Your task to perform on an android device: open device folders in google photos Image 0: 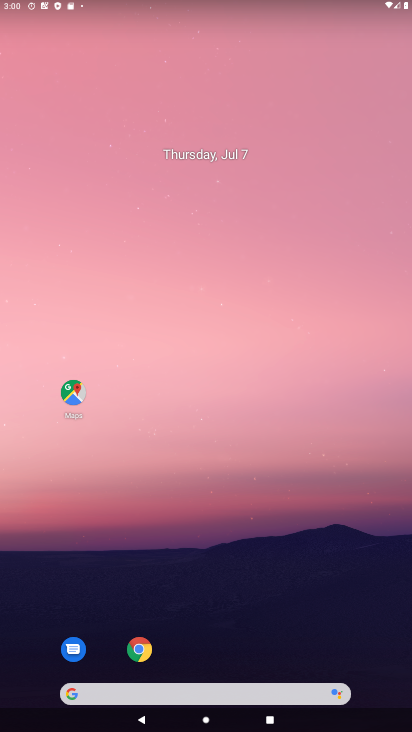
Step 0: drag from (270, 670) to (223, 7)
Your task to perform on an android device: open device folders in google photos Image 1: 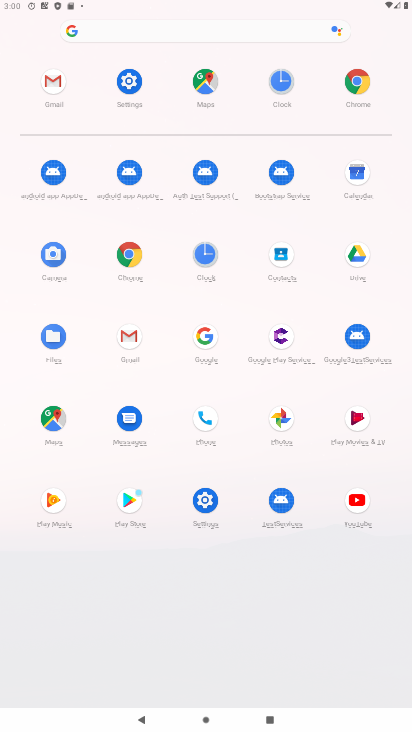
Step 1: click (282, 412)
Your task to perform on an android device: open device folders in google photos Image 2: 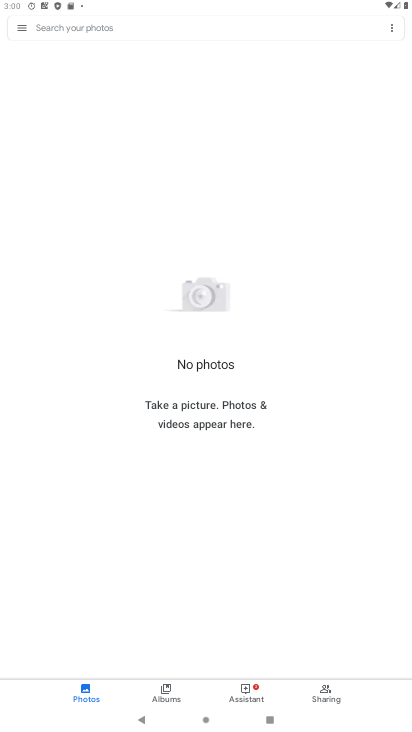
Step 2: click (12, 23)
Your task to perform on an android device: open device folders in google photos Image 3: 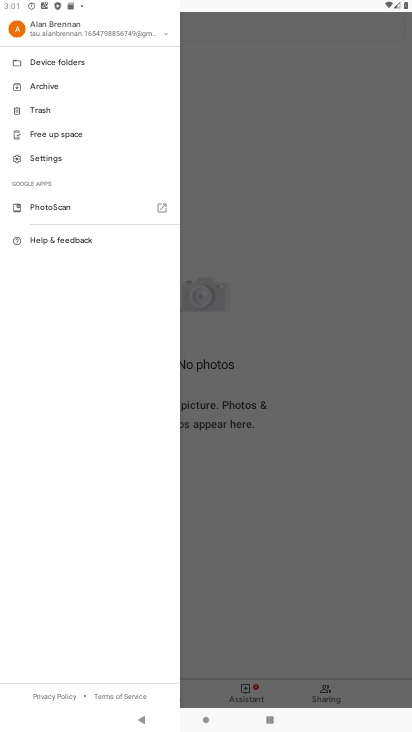
Step 3: click (60, 67)
Your task to perform on an android device: open device folders in google photos Image 4: 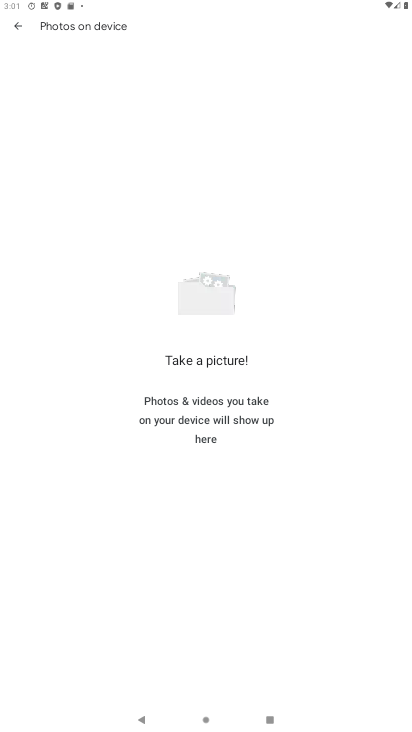
Step 4: task complete